Your task to perform on an android device: allow notifications from all sites in the chrome app Image 0: 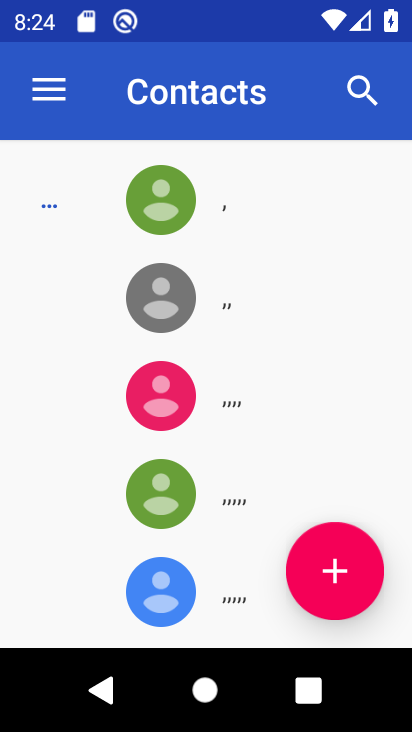
Step 0: press home button
Your task to perform on an android device: allow notifications from all sites in the chrome app Image 1: 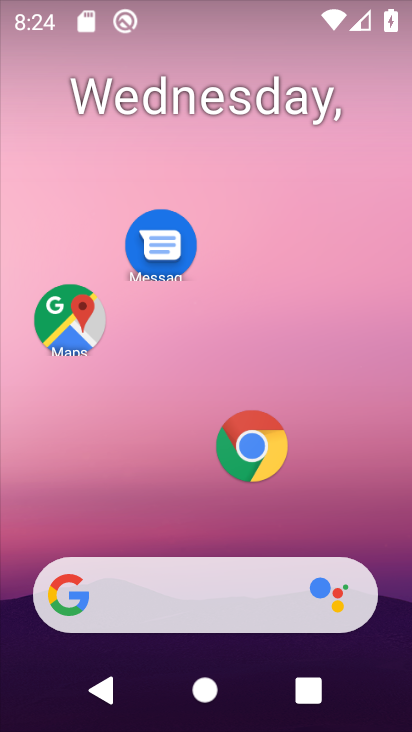
Step 1: click (254, 443)
Your task to perform on an android device: allow notifications from all sites in the chrome app Image 2: 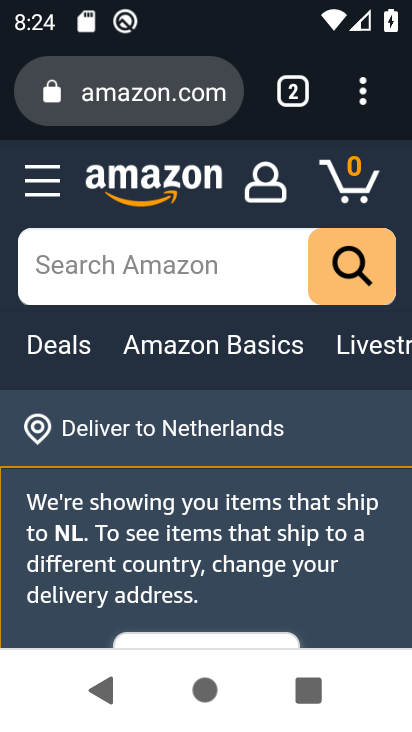
Step 2: click (360, 98)
Your task to perform on an android device: allow notifications from all sites in the chrome app Image 3: 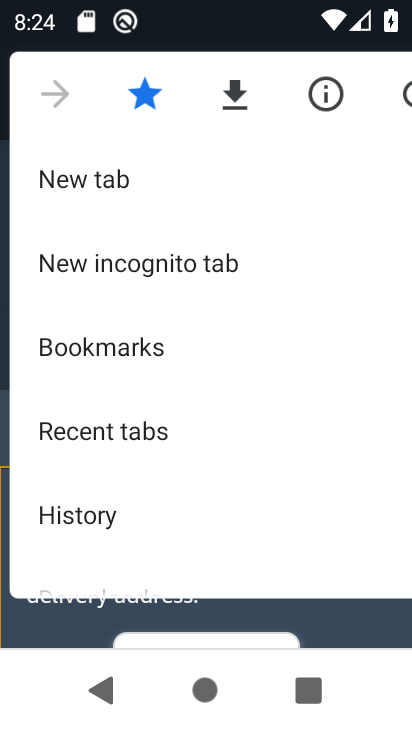
Step 3: drag from (149, 553) to (135, 151)
Your task to perform on an android device: allow notifications from all sites in the chrome app Image 4: 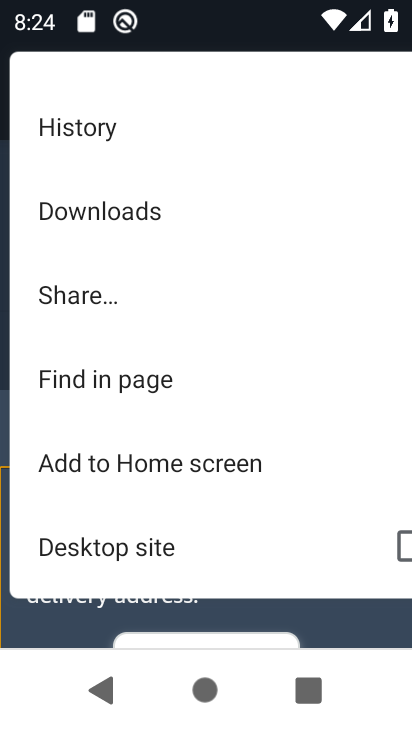
Step 4: drag from (161, 519) to (149, 47)
Your task to perform on an android device: allow notifications from all sites in the chrome app Image 5: 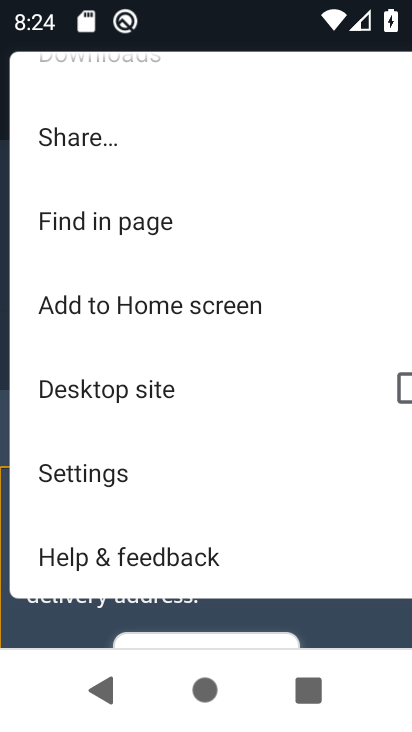
Step 5: click (138, 469)
Your task to perform on an android device: allow notifications from all sites in the chrome app Image 6: 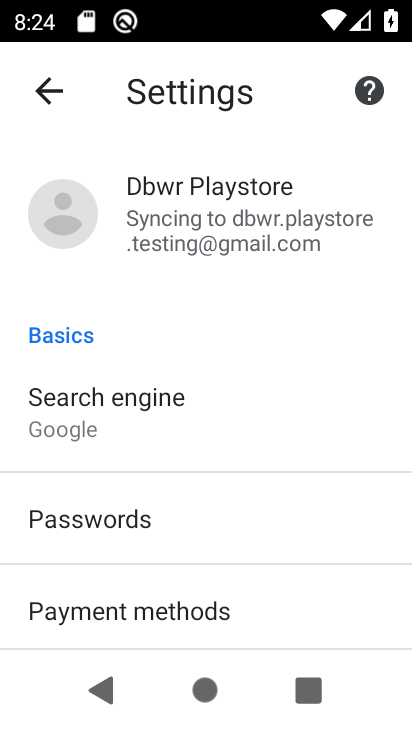
Step 6: drag from (210, 559) to (196, 138)
Your task to perform on an android device: allow notifications from all sites in the chrome app Image 7: 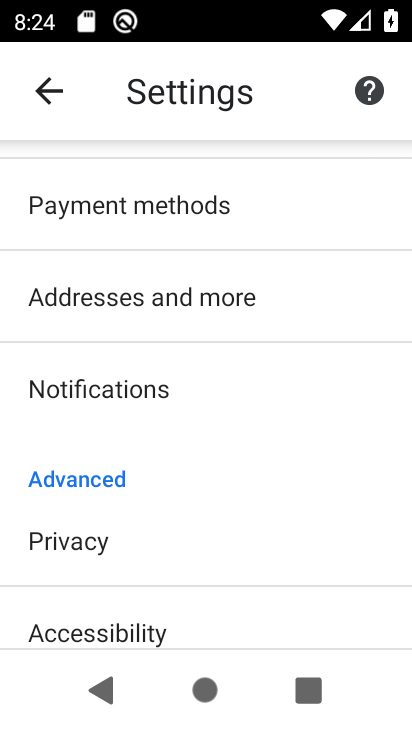
Step 7: click (198, 384)
Your task to perform on an android device: allow notifications from all sites in the chrome app Image 8: 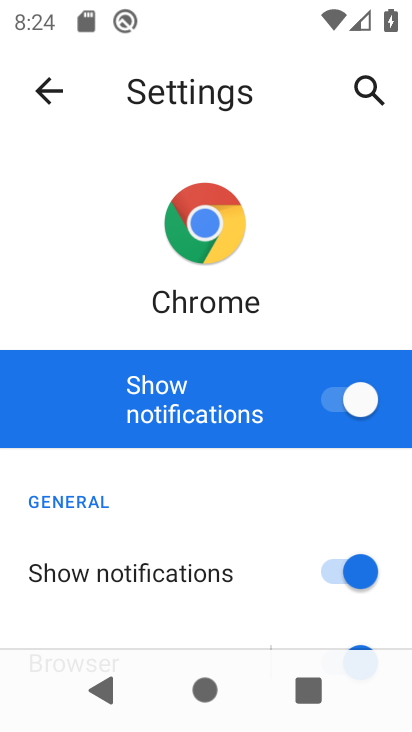
Step 8: task complete